Your task to perform on an android device: open sync settings in chrome Image 0: 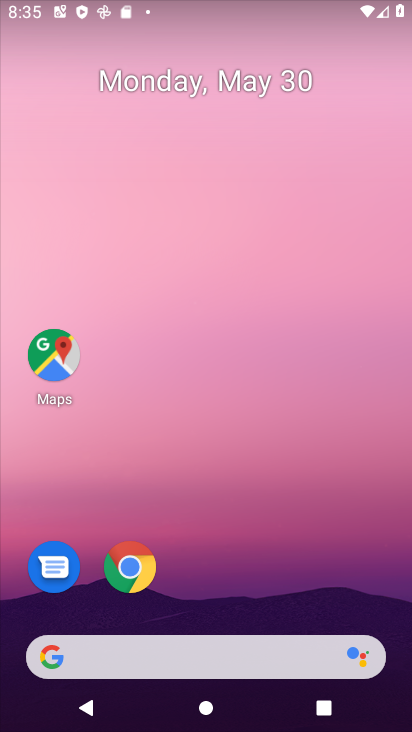
Step 0: click (143, 569)
Your task to perform on an android device: open sync settings in chrome Image 1: 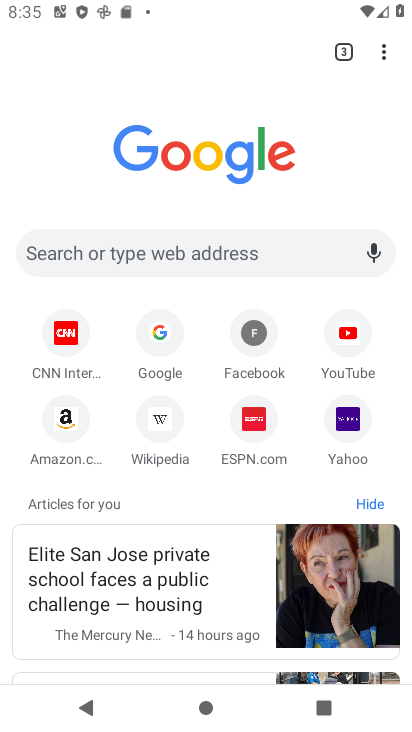
Step 1: click (378, 61)
Your task to perform on an android device: open sync settings in chrome Image 2: 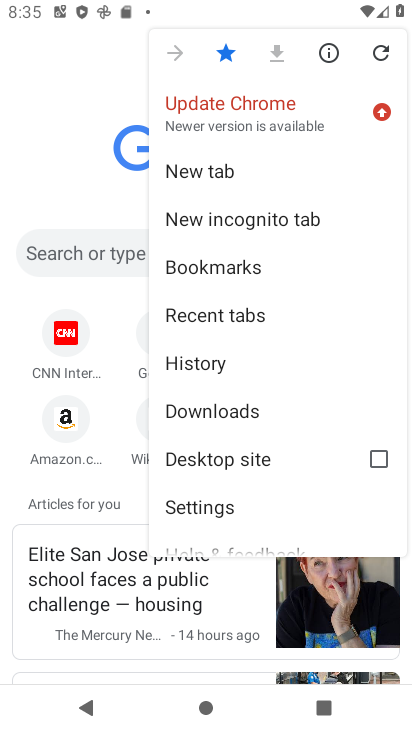
Step 2: click (211, 487)
Your task to perform on an android device: open sync settings in chrome Image 3: 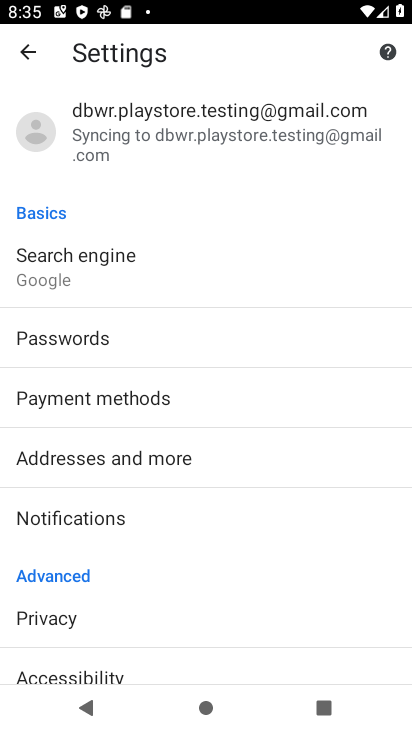
Step 3: click (178, 112)
Your task to perform on an android device: open sync settings in chrome Image 4: 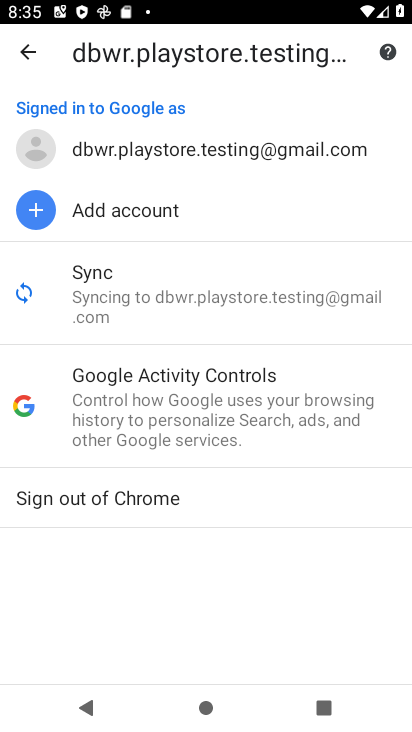
Step 4: click (186, 310)
Your task to perform on an android device: open sync settings in chrome Image 5: 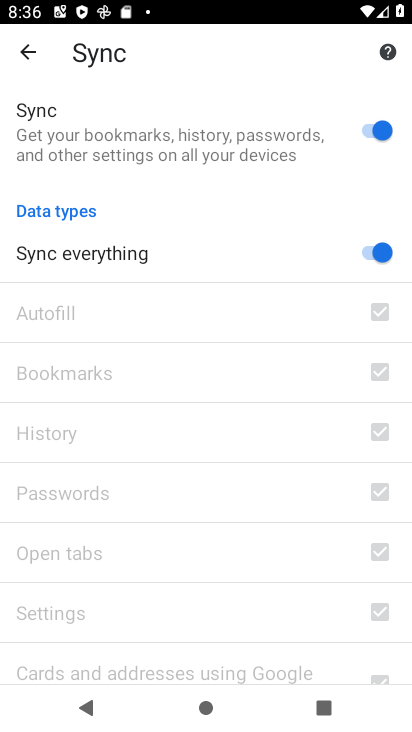
Step 5: task complete